Your task to perform on an android device: turn off location Image 0: 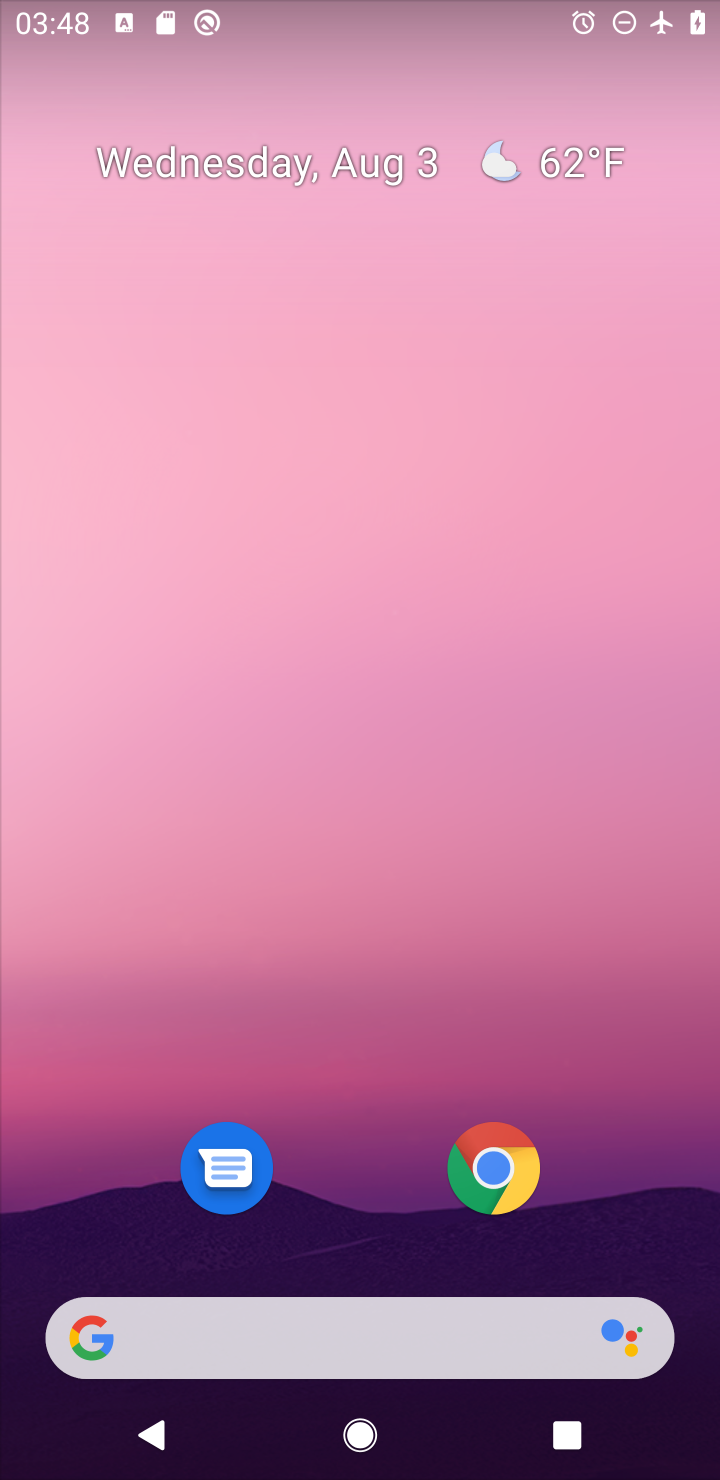
Step 0: drag from (645, 1100) to (583, 185)
Your task to perform on an android device: turn off location Image 1: 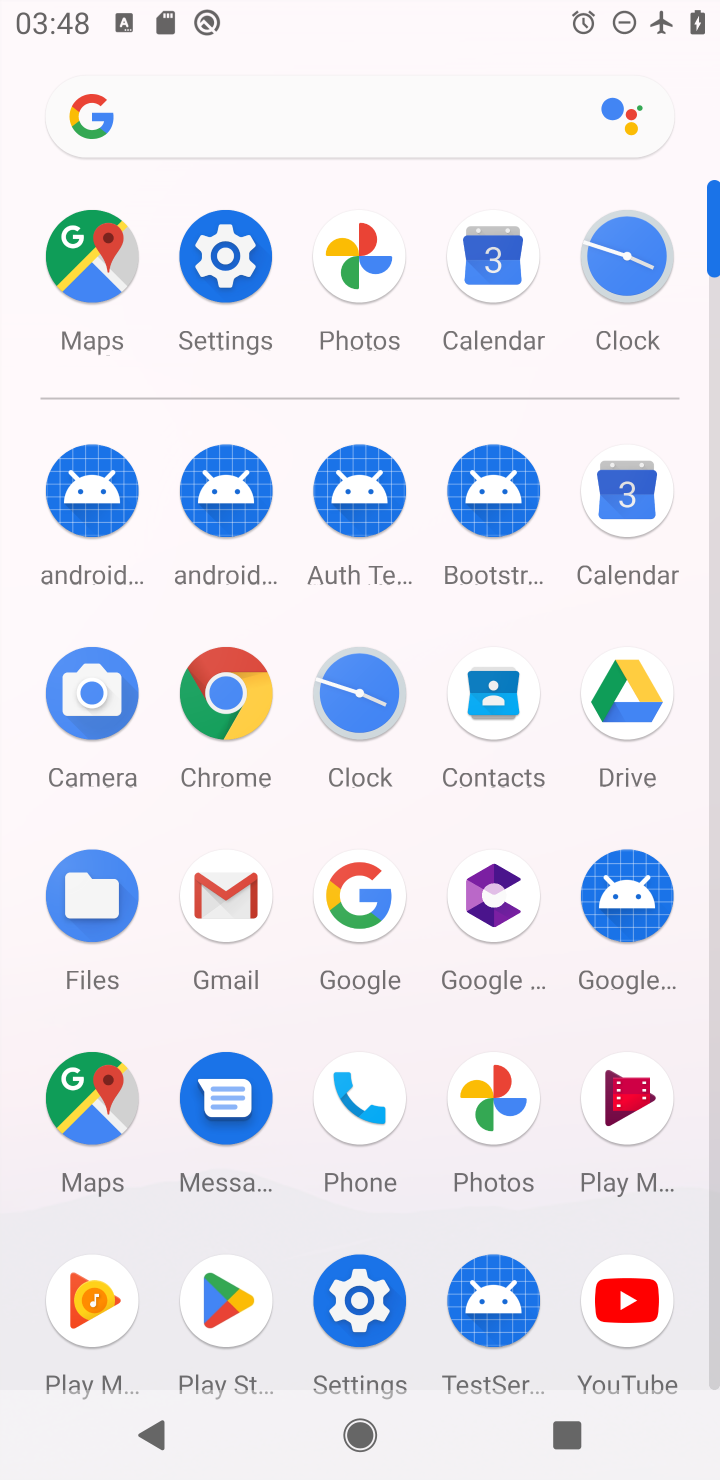
Step 1: click (359, 1296)
Your task to perform on an android device: turn off location Image 2: 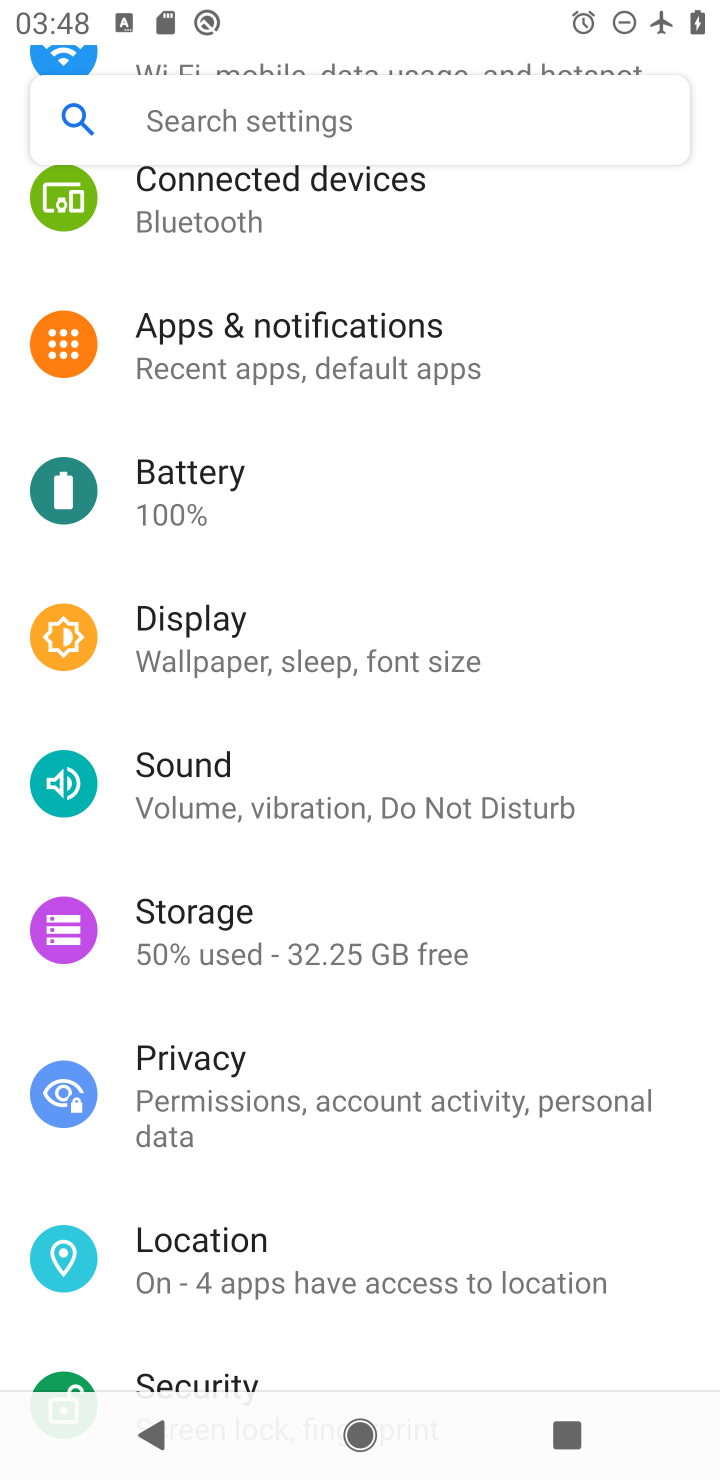
Step 2: click (218, 1261)
Your task to perform on an android device: turn off location Image 3: 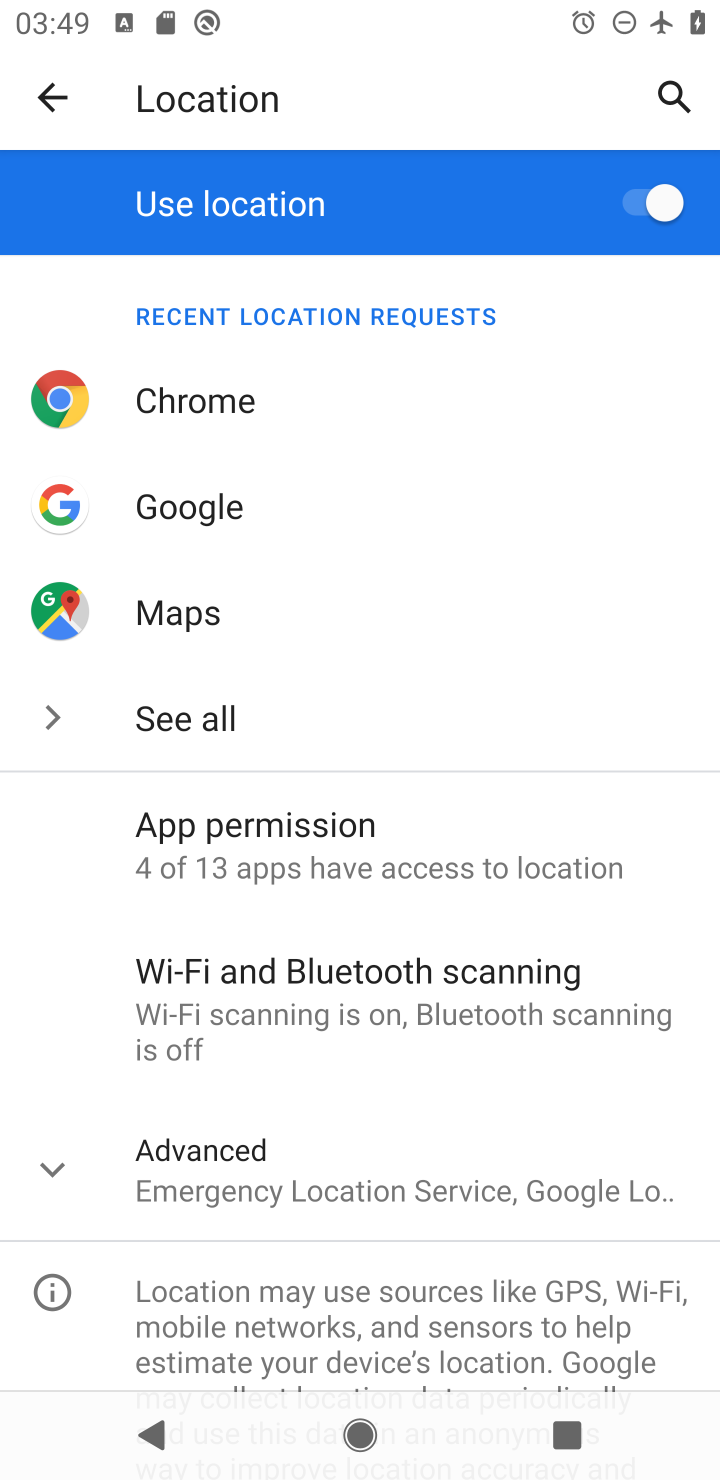
Step 3: click (624, 202)
Your task to perform on an android device: turn off location Image 4: 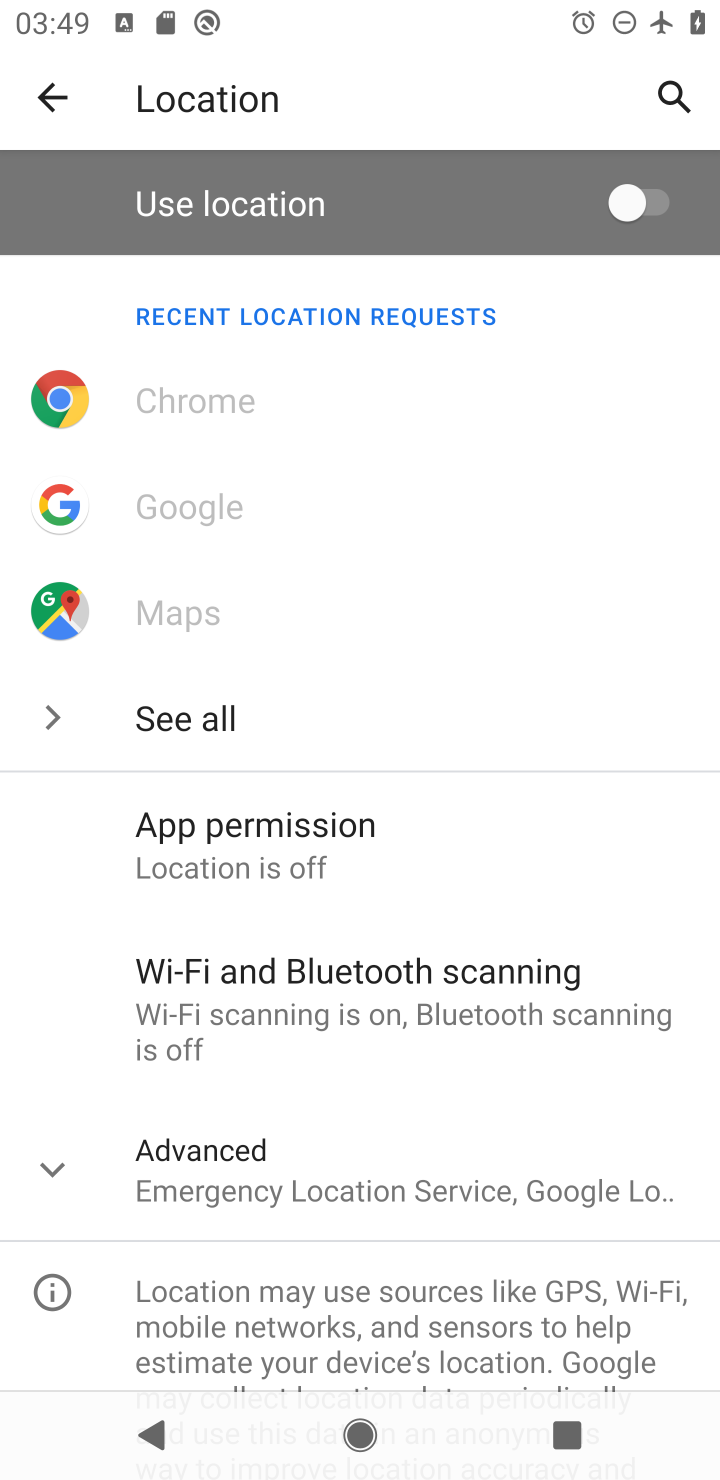
Step 4: task complete